Your task to perform on an android device: Go to calendar. Show me events next week Image 0: 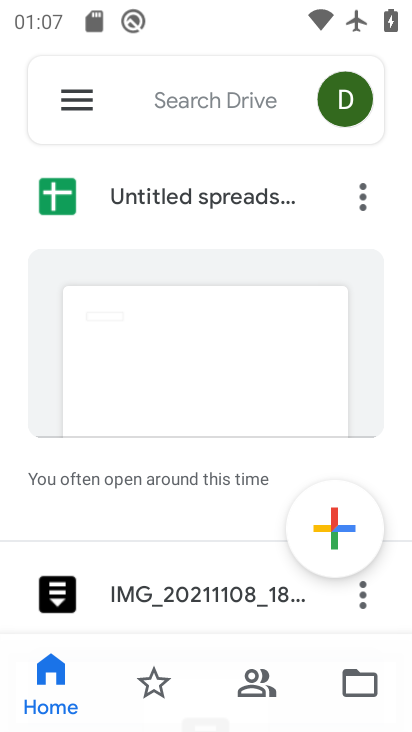
Step 0: press home button
Your task to perform on an android device: Go to calendar. Show me events next week Image 1: 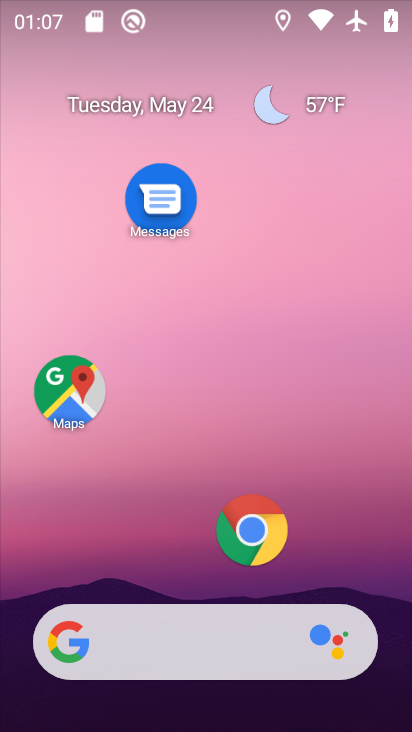
Step 1: drag from (120, 442) to (100, 5)
Your task to perform on an android device: Go to calendar. Show me events next week Image 2: 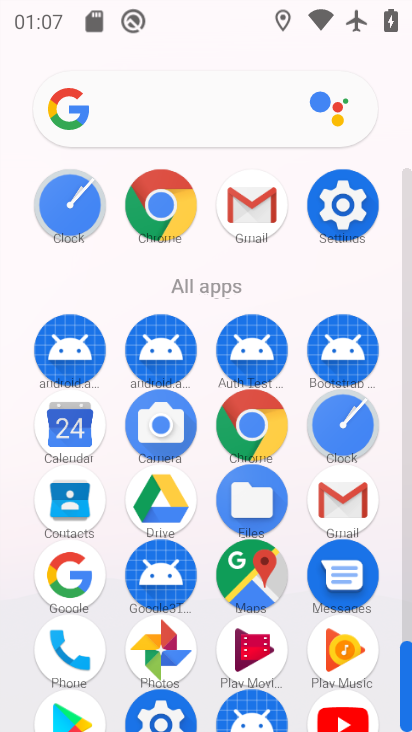
Step 2: click (67, 429)
Your task to perform on an android device: Go to calendar. Show me events next week Image 3: 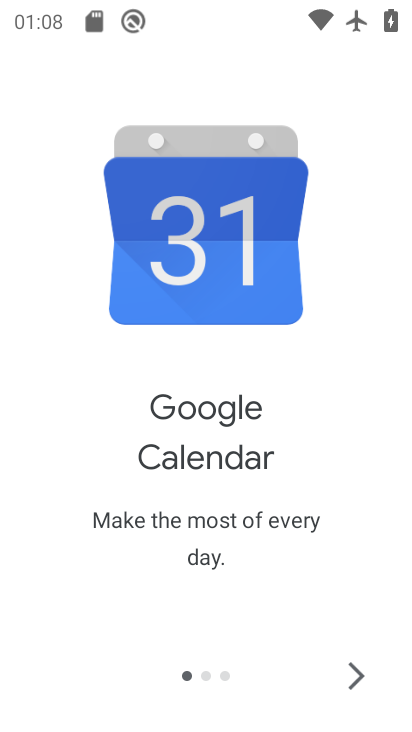
Step 3: click (363, 689)
Your task to perform on an android device: Go to calendar. Show me events next week Image 4: 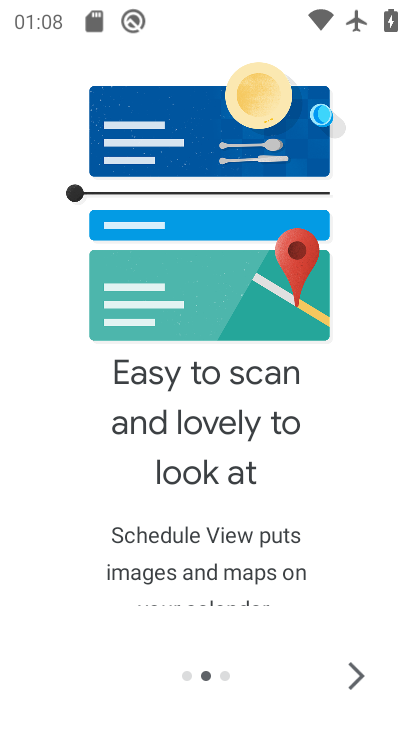
Step 4: click (355, 672)
Your task to perform on an android device: Go to calendar. Show me events next week Image 5: 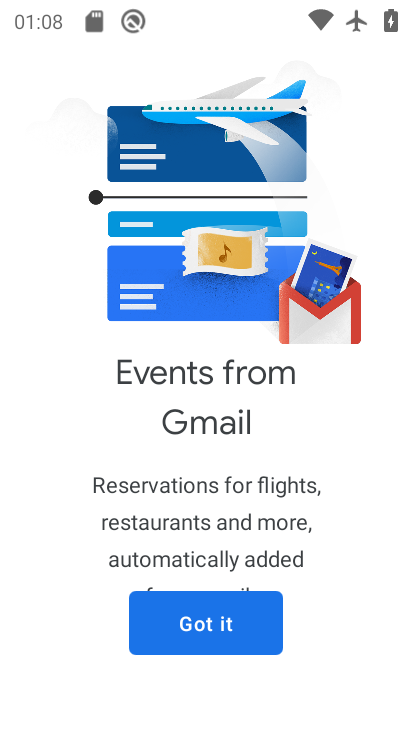
Step 5: click (355, 672)
Your task to perform on an android device: Go to calendar. Show me events next week Image 6: 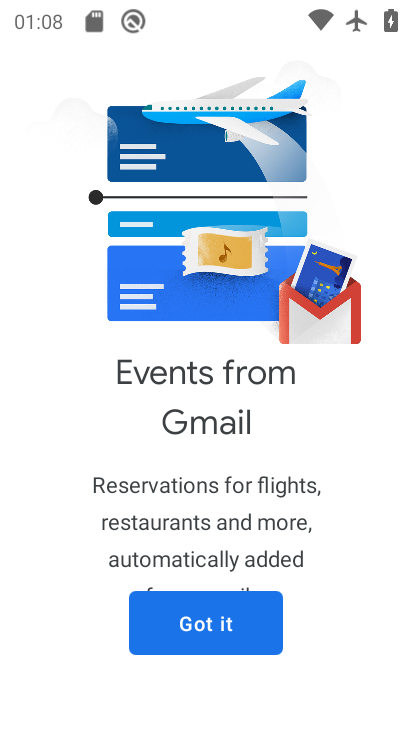
Step 6: click (243, 629)
Your task to perform on an android device: Go to calendar. Show me events next week Image 7: 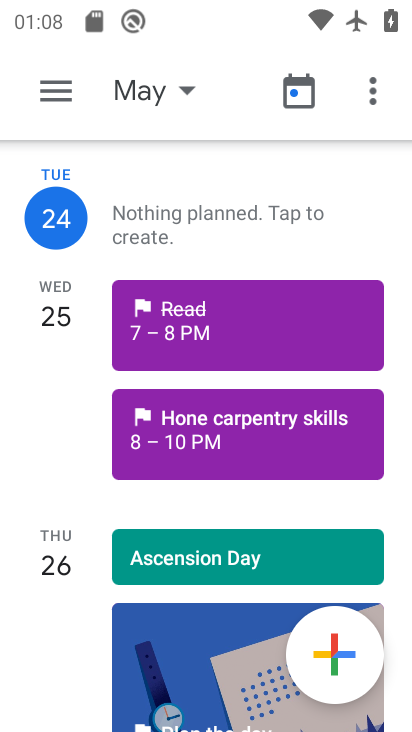
Step 7: click (158, 78)
Your task to perform on an android device: Go to calendar. Show me events next week Image 8: 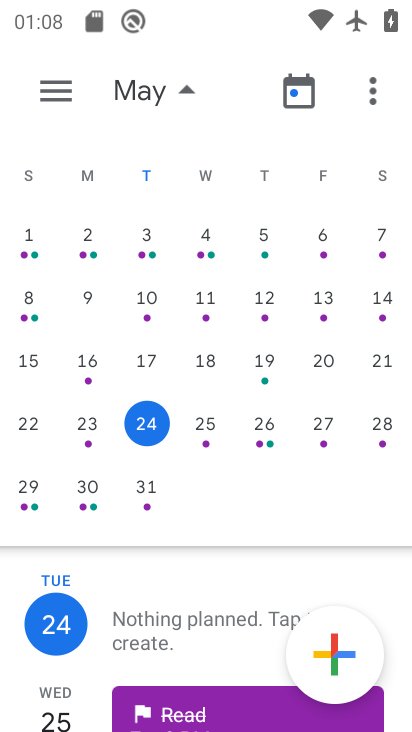
Step 8: click (23, 488)
Your task to perform on an android device: Go to calendar. Show me events next week Image 9: 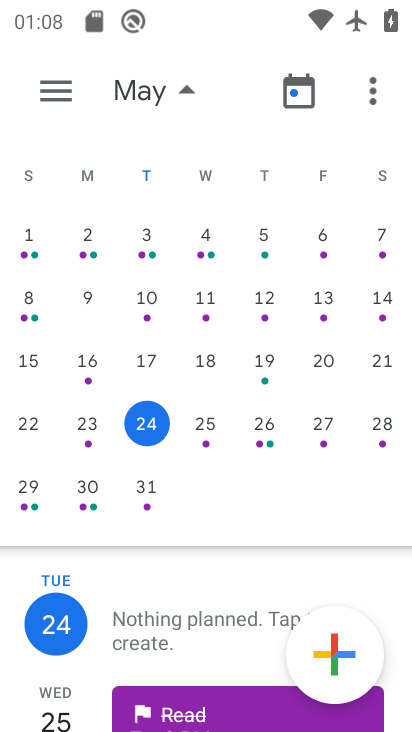
Step 9: task complete